Your task to perform on an android device: install app "Messenger Lite" Image 0: 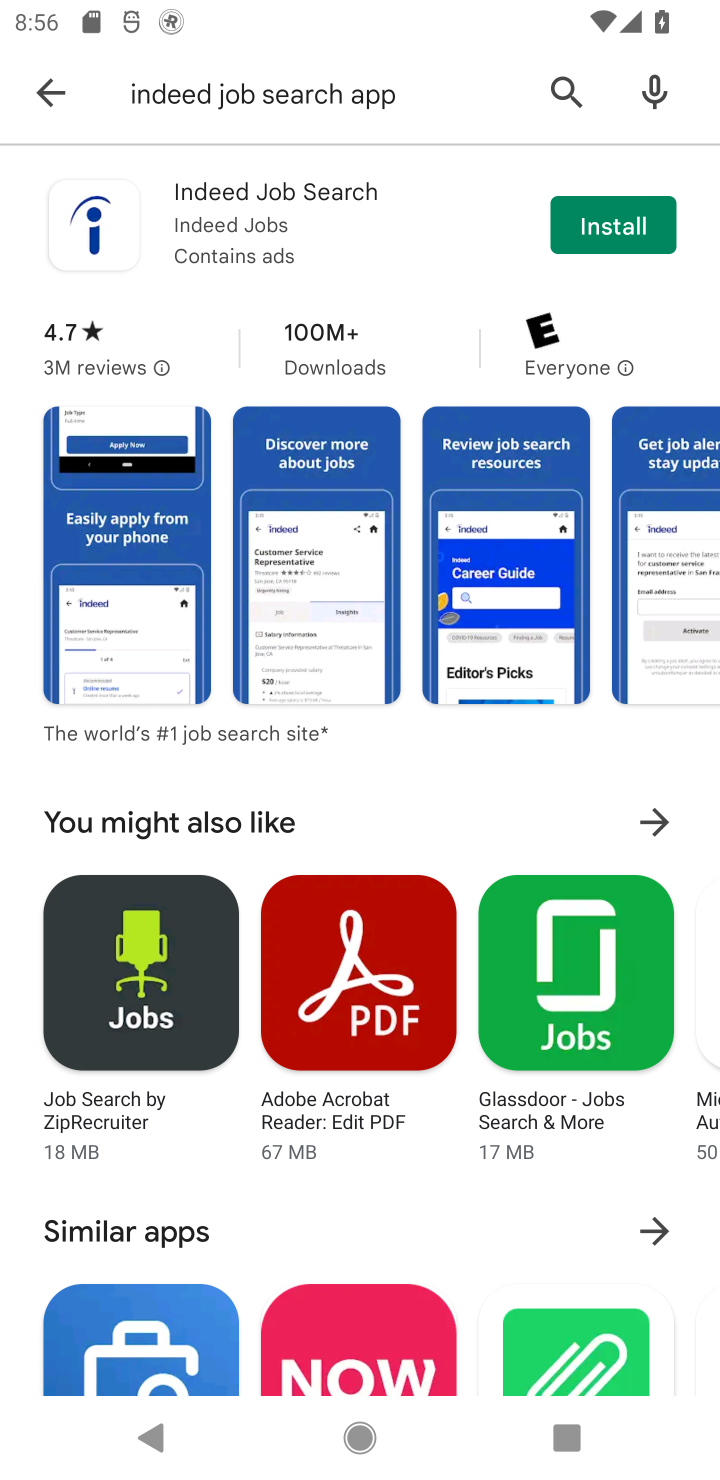
Step 0: click (574, 91)
Your task to perform on an android device: install app "Messenger Lite" Image 1: 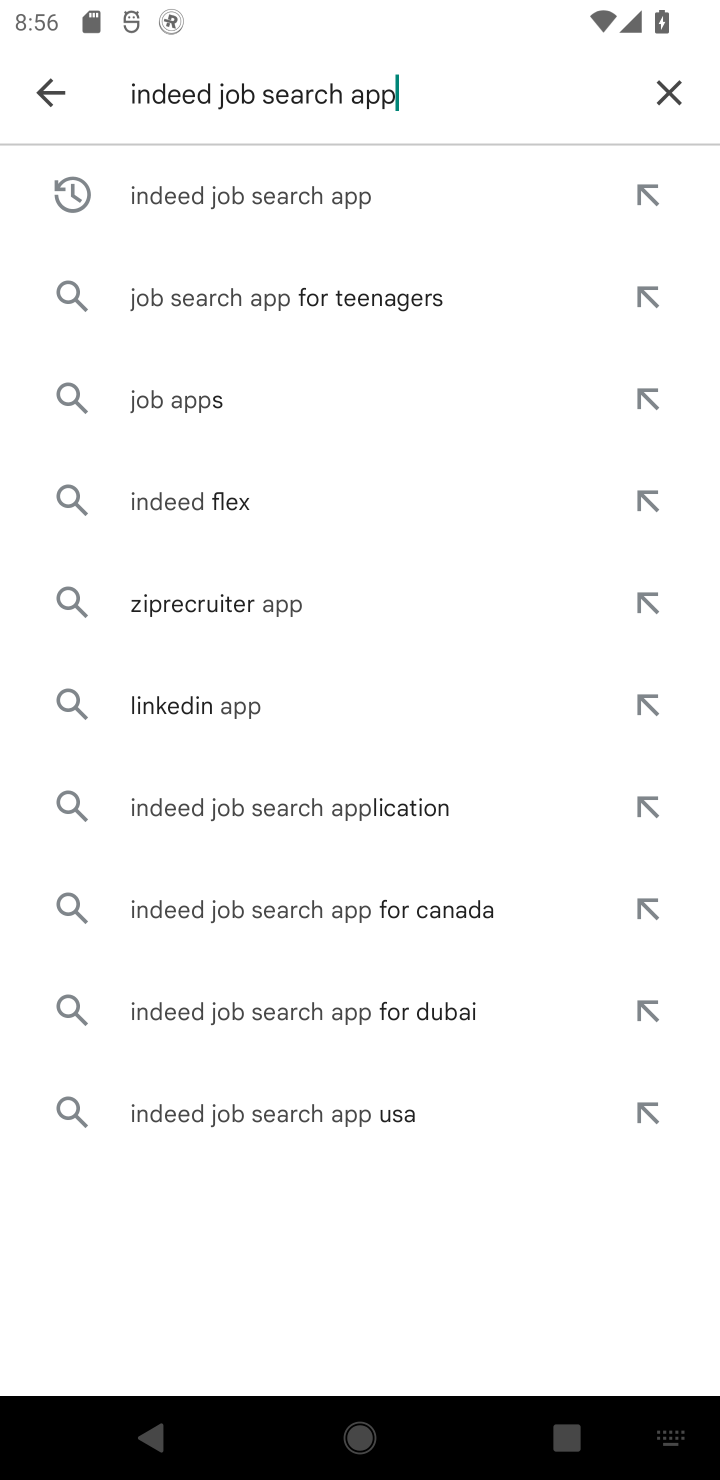
Step 1: click (648, 81)
Your task to perform on an android device: install app "Messenger Lite" Image 2: 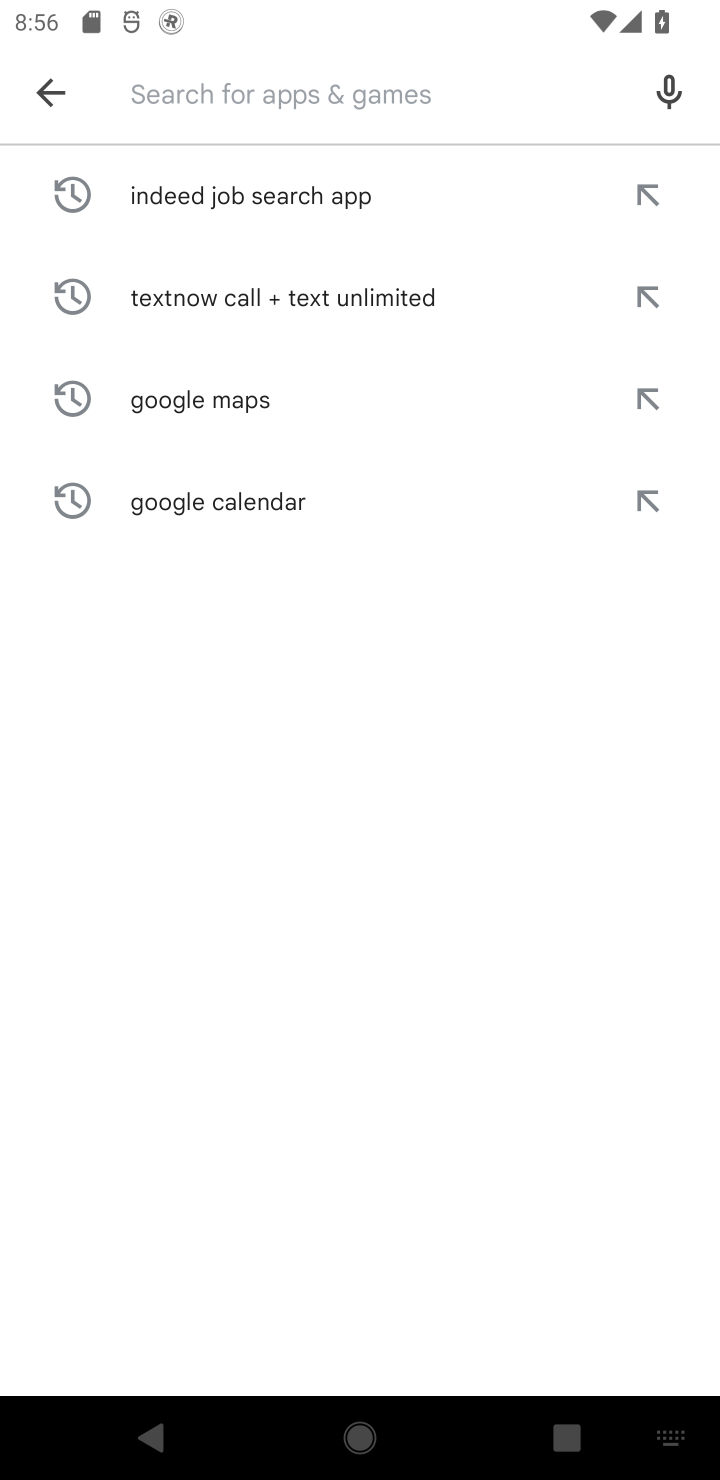
Step 2: type "Messenger Lite"
Your task to perform on an android device: install app "Messenger Lite" Image 3: 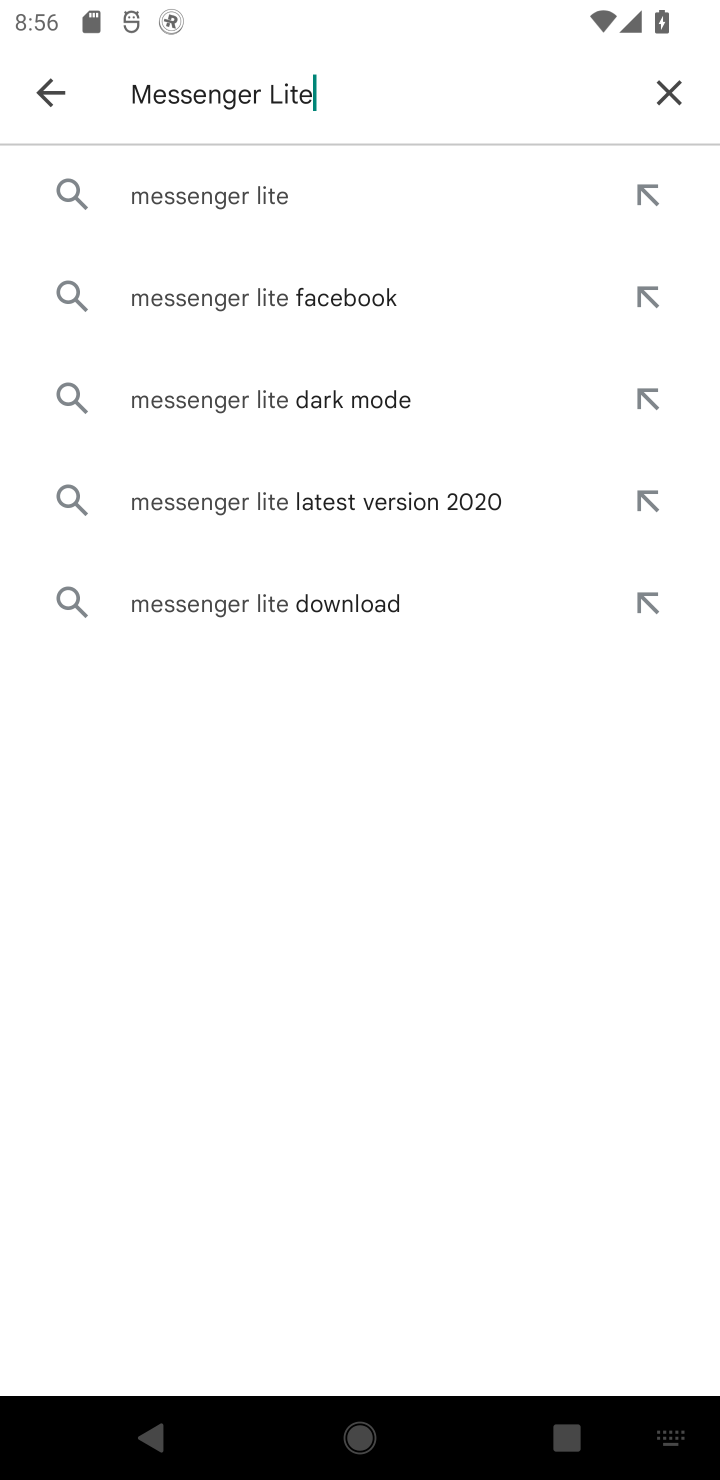
Step 3: click (335, 210)
Your task to perform on an android device: install app "Messenger Lite" Image 4: 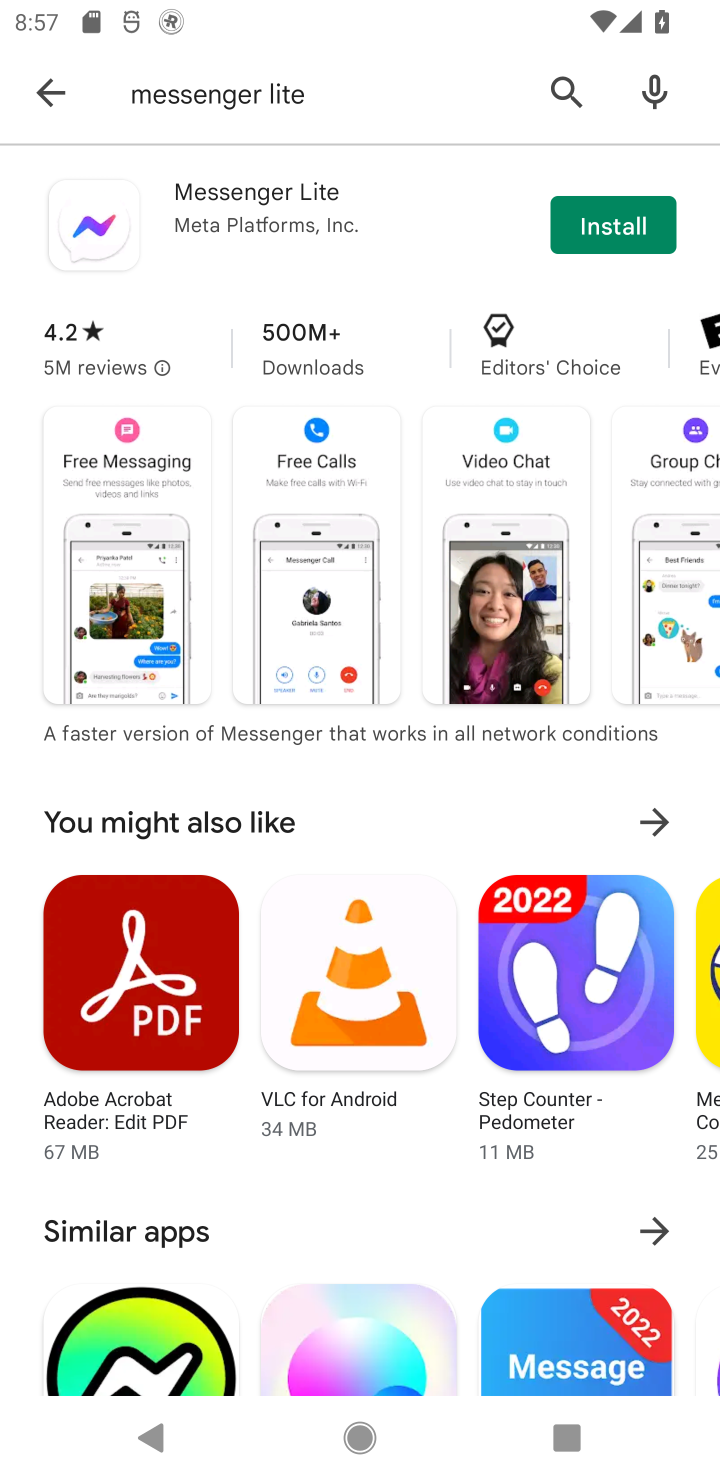
Step 4: click (620, 239)
Your task to perform on an android device: install app "Messenger Lite" Image 5: 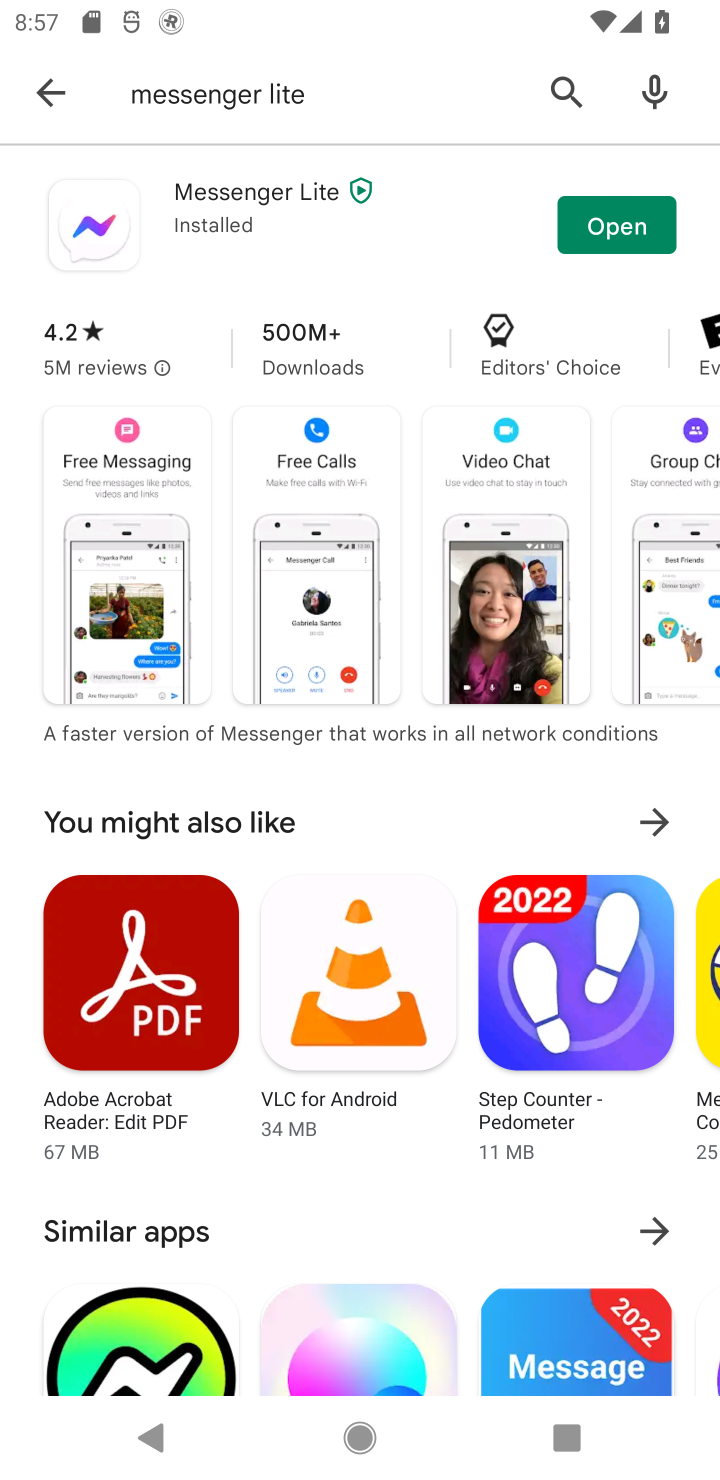
Step 5: task complete